Your task to perform on an android device: turn on bluetooth scan Image 0: 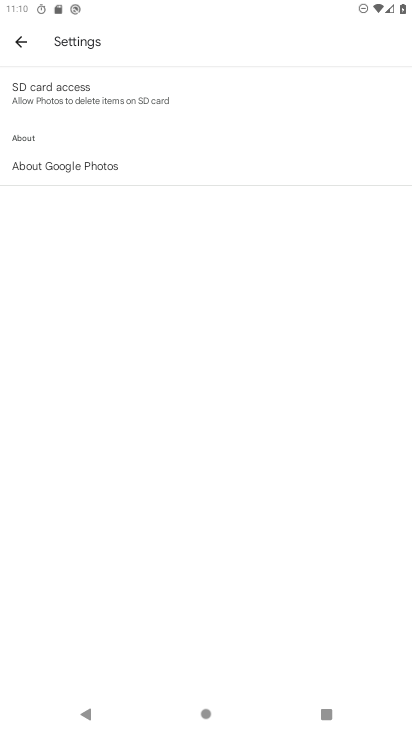
Step 0: press home button
Your task to perform on an android device: turn on bluetooth scan Image 1: 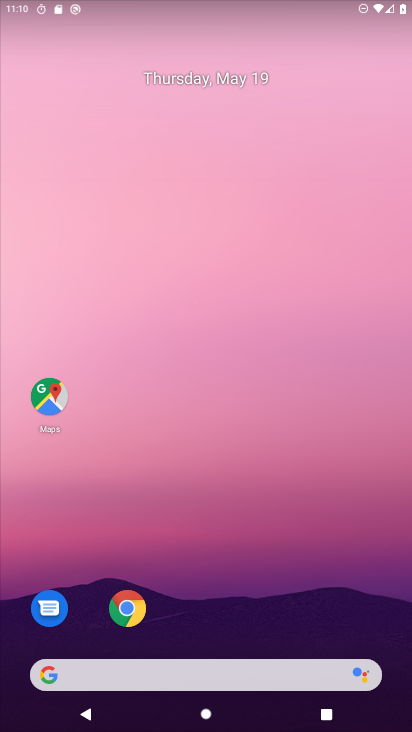
Step 1: drag from (395, 377) to (374, 145)
Your task to perform on an android device: turn on bluetooth scan Image 2: 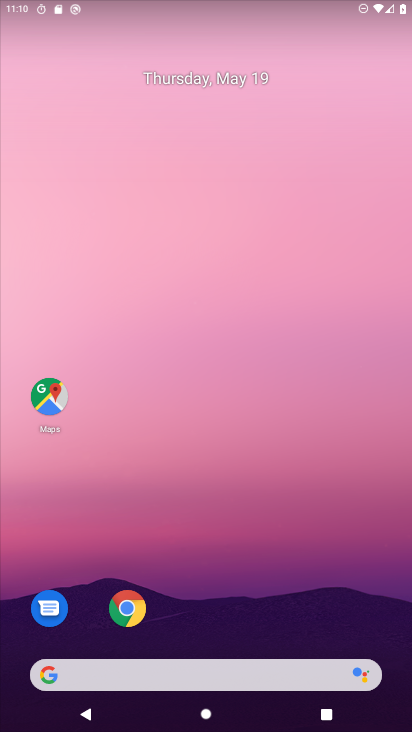
Step 2: drag from (400, 594) to (365, 312)
Your task to perform on an android device: turn on bluetooth scan Image 3: 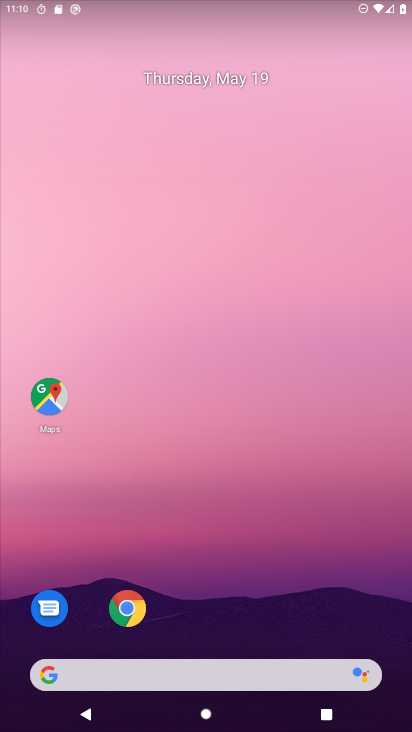
Step 3: drag from (397, 715) to (391, 233)
Your task to perform on an android device: turn on bluetooth scan Image 4: 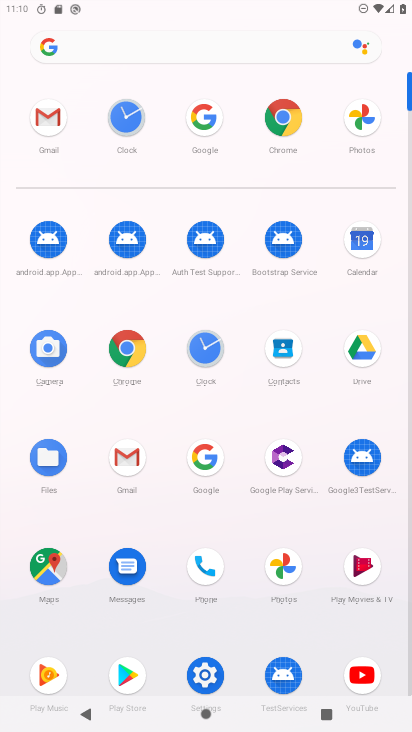
Step 4: click (209, 675)
Your task to perform on an android device: turn on bluetooth scan Image 5: 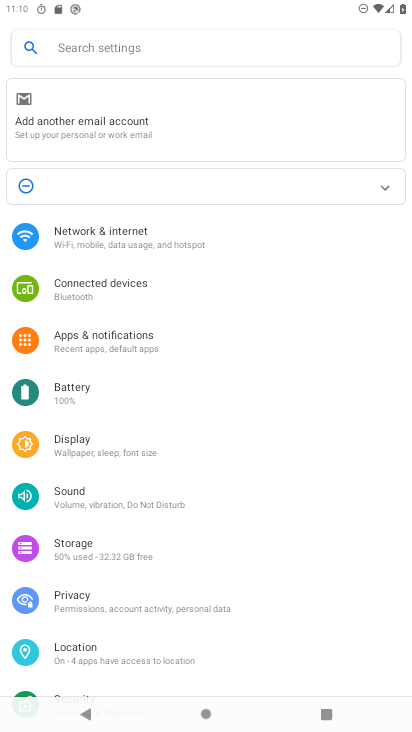
Step 5: click (67, 652)
Your task to perform on an android device: turn on bluetooth scan Image 6: 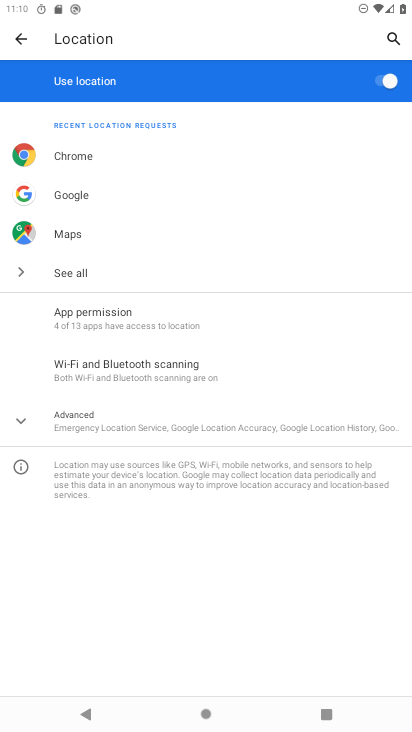
Step 6: click (113, 350)
Your task to perform on an android device: turn on bluetooth scan Image 7: 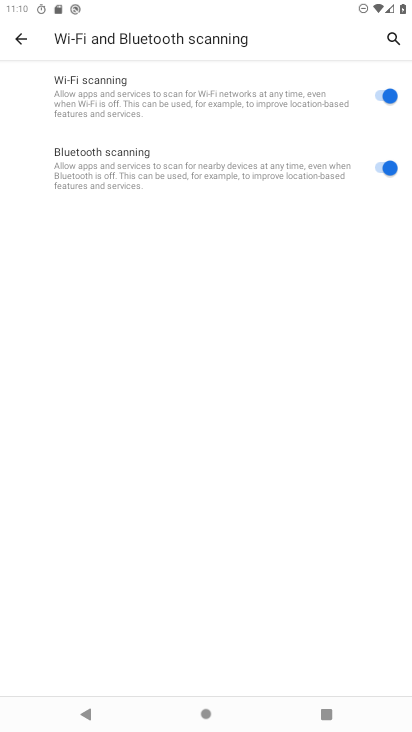
Step 7: task complete